Your task to perform on an android device: search for starred emails in the gmail app Image 0: 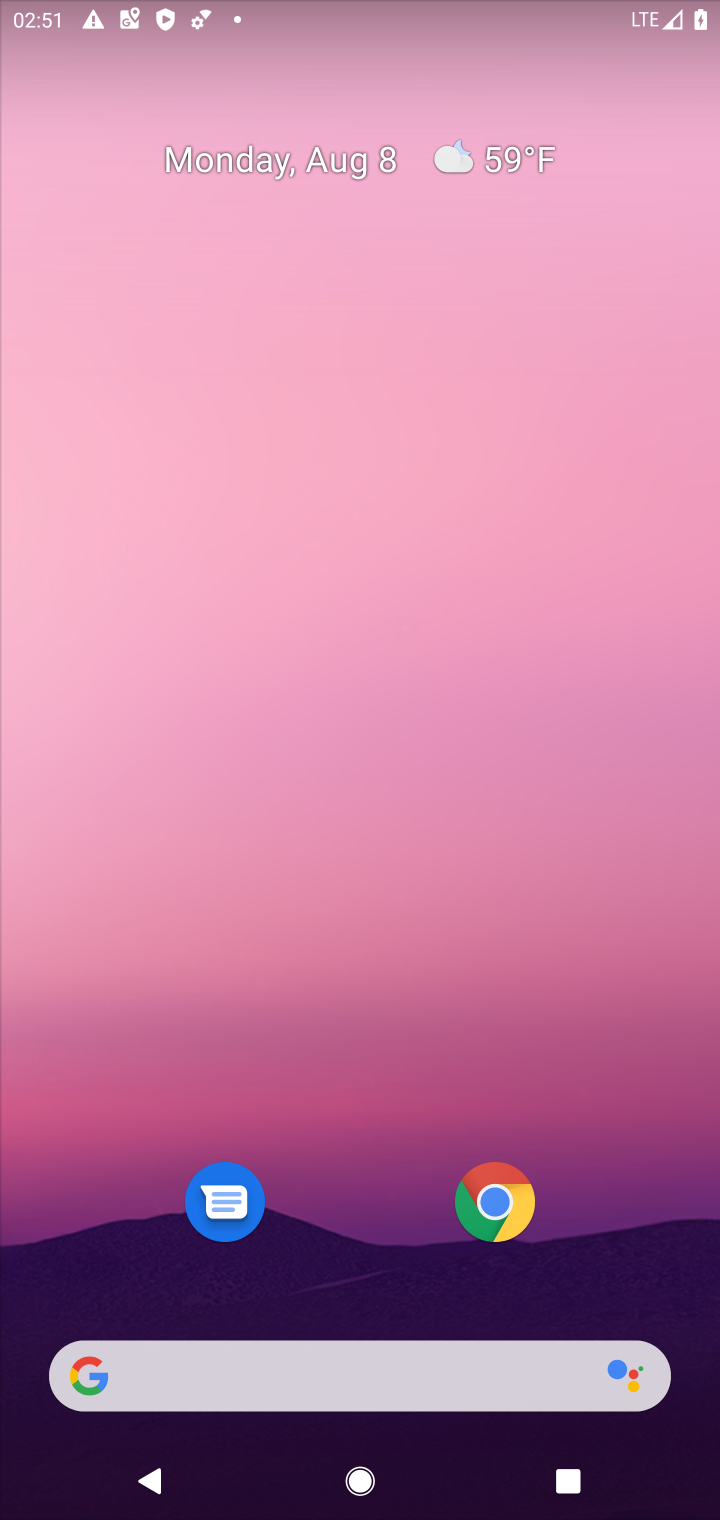
Step 0: drag from (334, 1227) to (360, 78)
Your task to perform on an android device: search for starred emails in the gmail app Image 1: 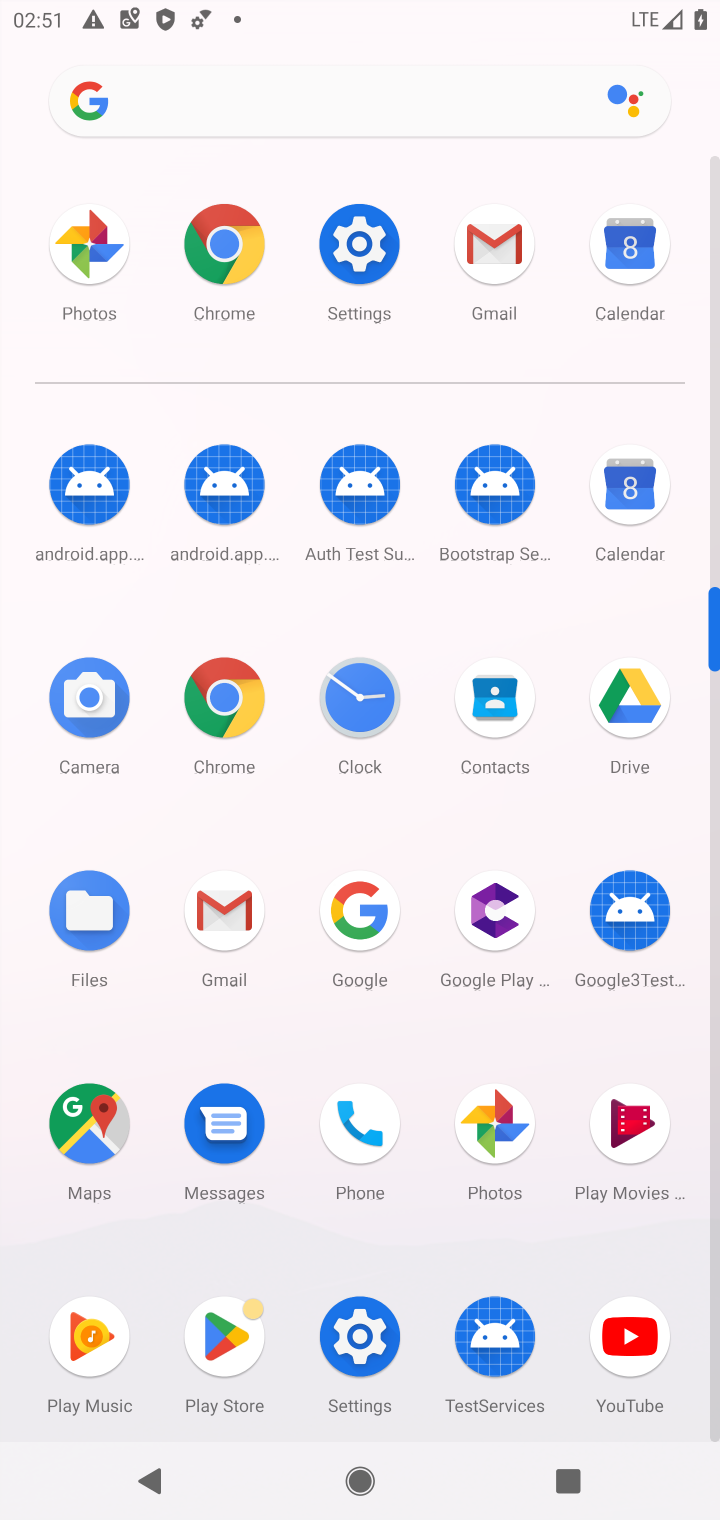
Step 1: click (493, 356)
Your task to perform on an android device: search for starred emails in the gmail app Image 2: 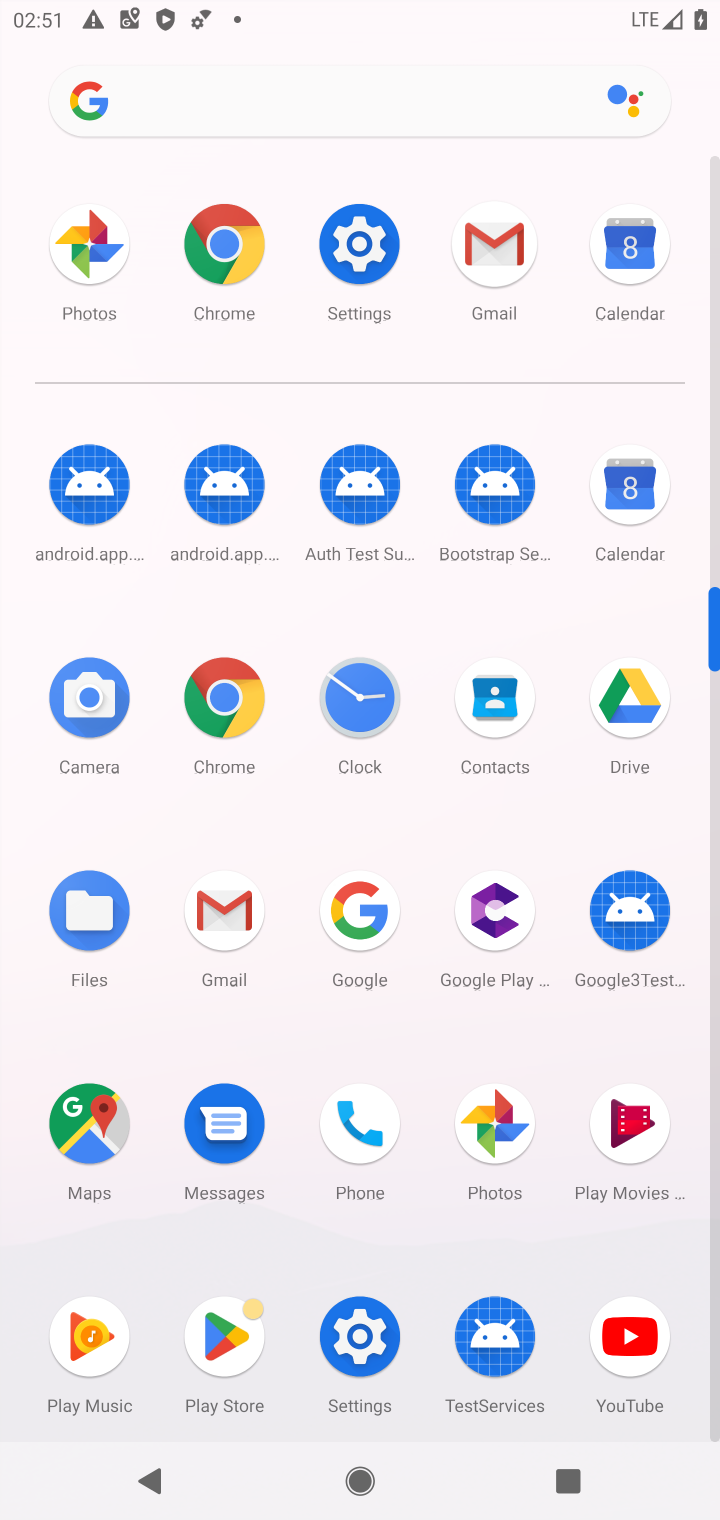
Step 2: click (500, 305)
Your task to perform on an android device: search for starred emails in the gmail app Image 3: 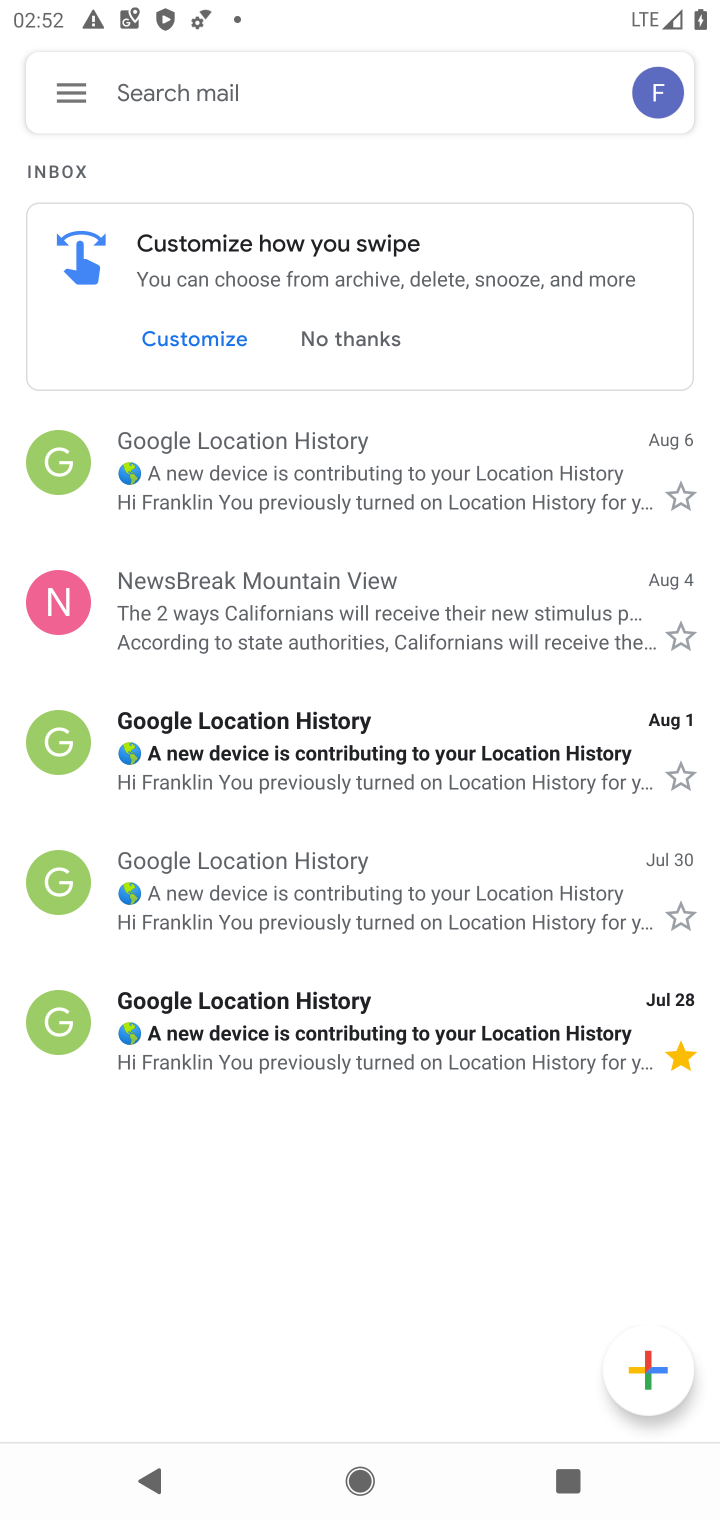
Step 3: click (83, 90)
Your task to perform on an android device: search for starred emails in the gmail app Image 4: 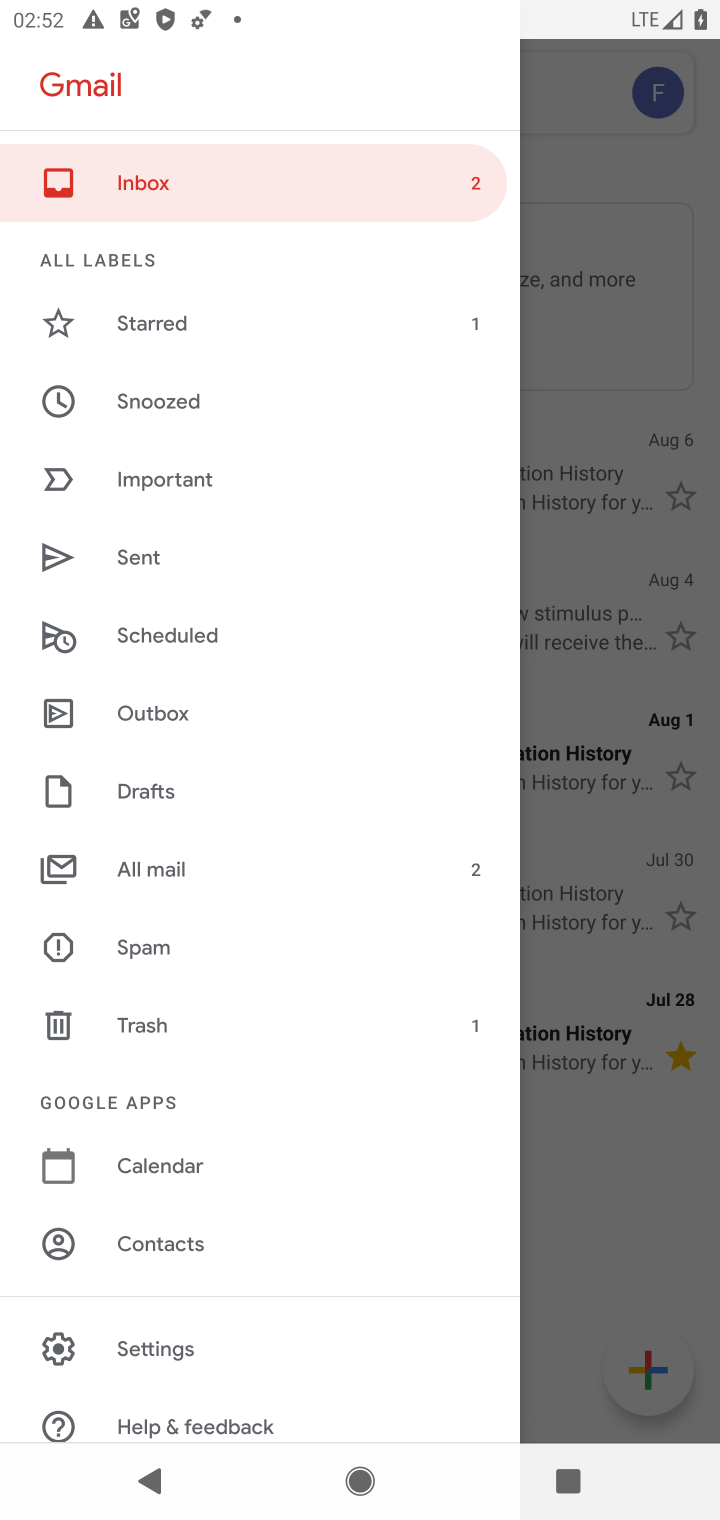
Step 4: click (172, 315)
Your task to perform on an android device: search for starred emails in the gmail app Image 5: 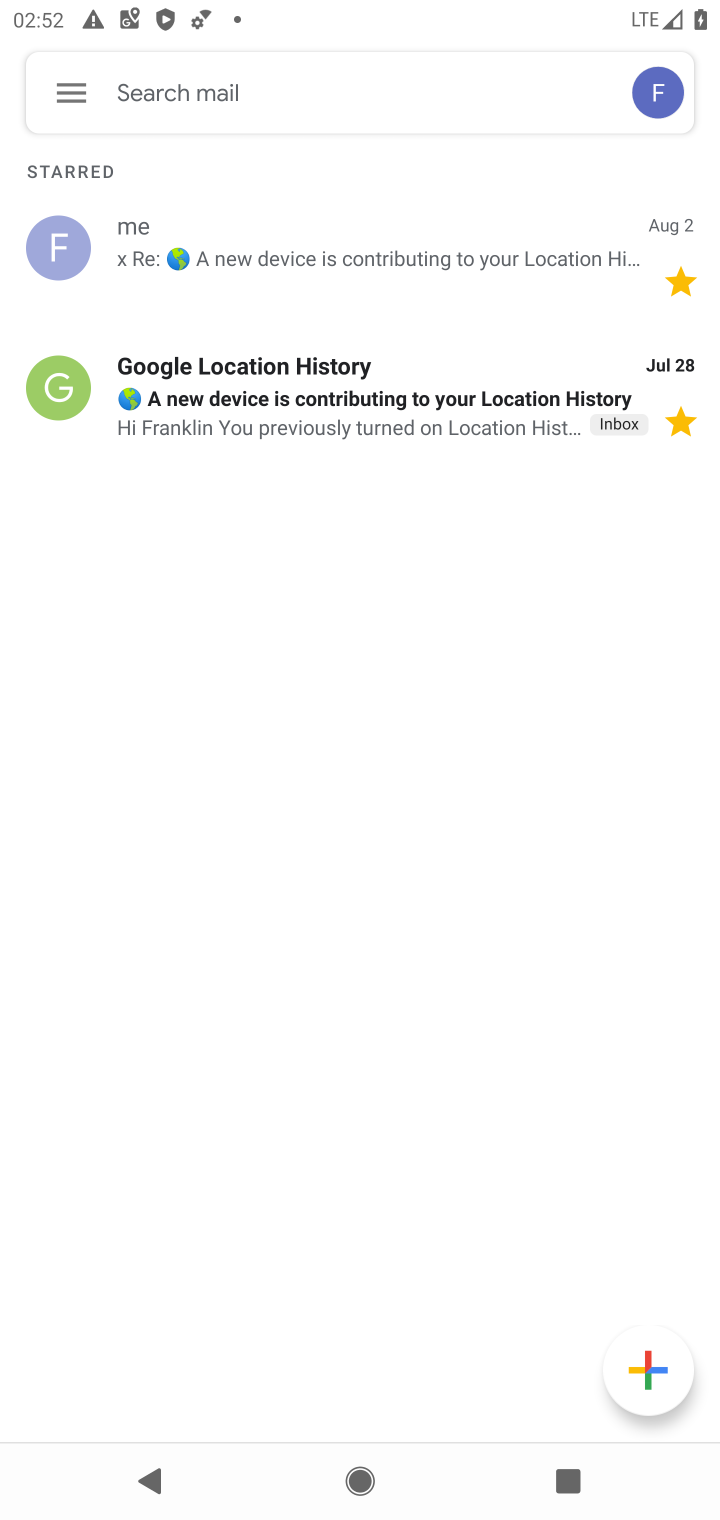
Step 5: task complete